Your task to perform on an android device: change notifications settings Image 0: 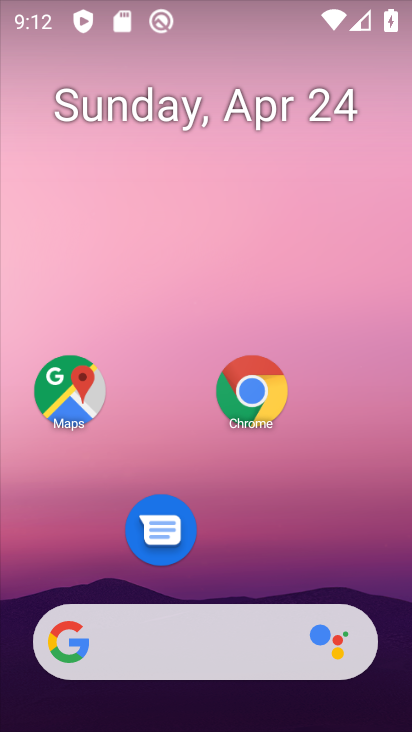
Step 0: drag from (218, 587) to (228, 80)
Your task to perform on an android device: change notifications settings Image 1: 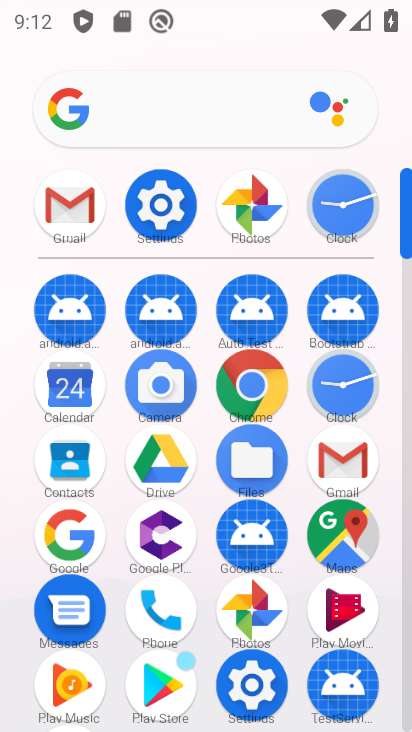
Step 1: click (248, 672)
Your task to perform on an android device: change notifications settings Image 2: 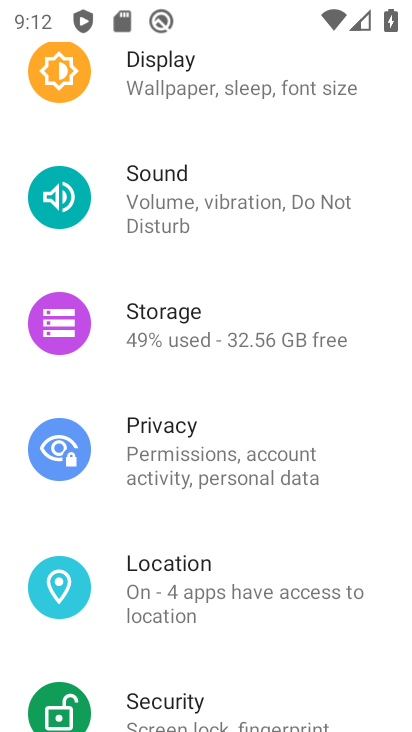
Step 2: drag from (155, 198) to (188, 515)
Your task to perform on an android device: change notifications settings Image 3: 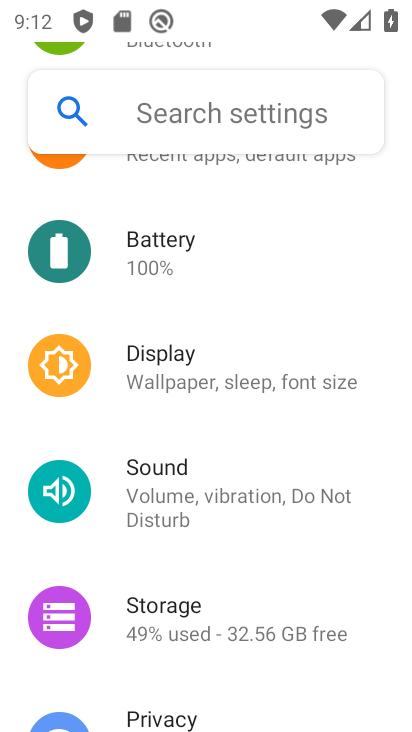
Step 3: drag from (201, 170) to (277, 508)
Your task to perform on an android device: change notifications settings Image 4: 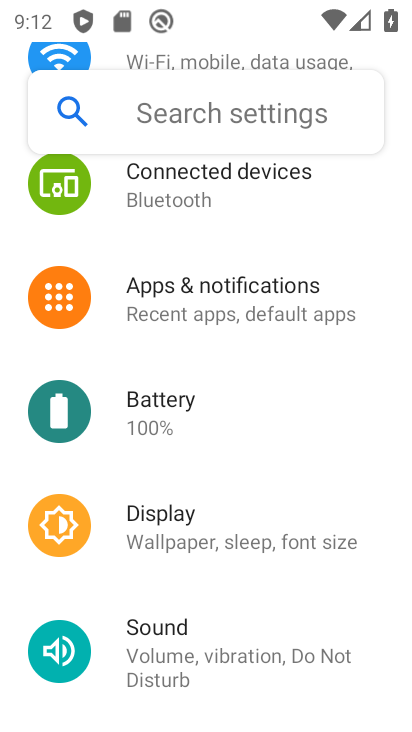
Step 4: click (207, 298)
Your task to perform on an android device: change notifications settings Image 5: 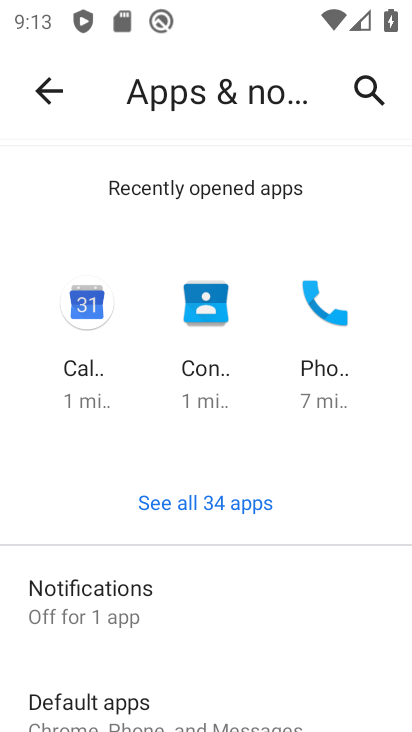
Step 5: click (138, 647)
Your task to perform on an android device: change notifications settings Image 6: 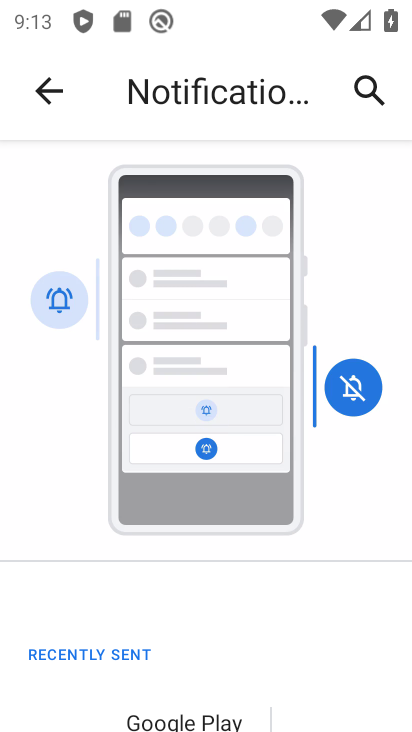
Step 6: drag from (174, 594) to (236, 210)
Your task to perform on an android device: change notifications settings Image 7: 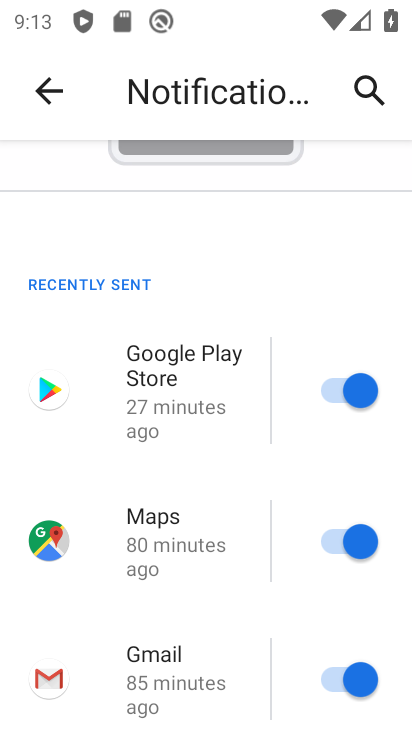
Step 7: drag from (181, 518) to (215, 154)
Your task to perform on an android device: change notifications settings Image 8: 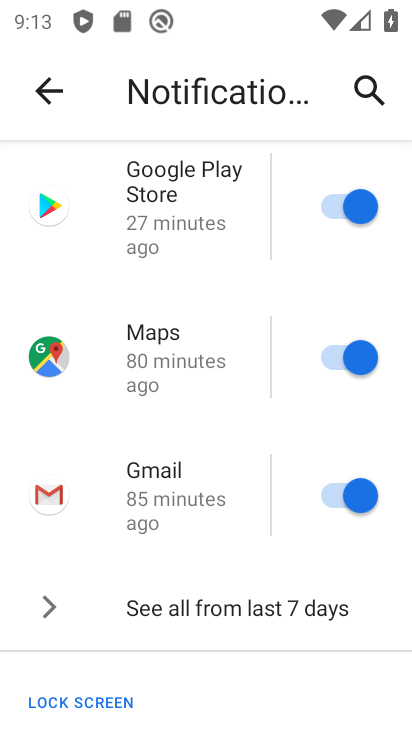
Step 8: drag from (201, 688) to (207, 323)
Your task to perform on an android device: change notifications settings Image 9: 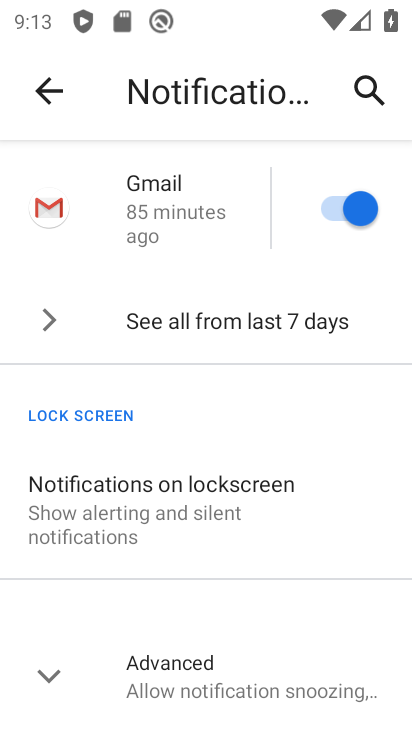
Step 9: click (182, 662)
Your task to perform on an android device: change notifications settings Image 10: 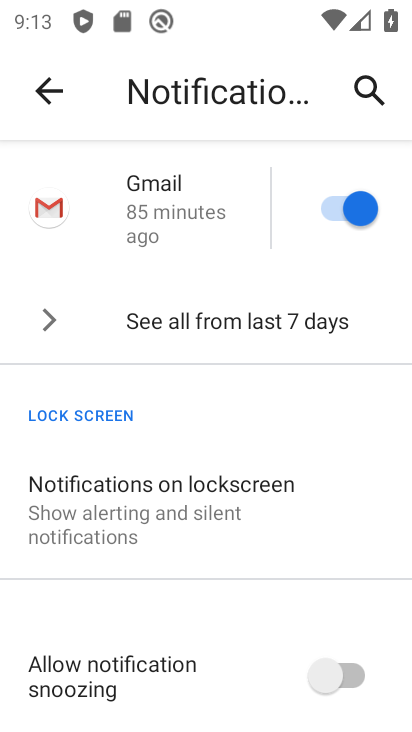
Step 10: drag from (196, 651) to (217, 375)
Your task to perform on an android device: change notifications settings Image 11: 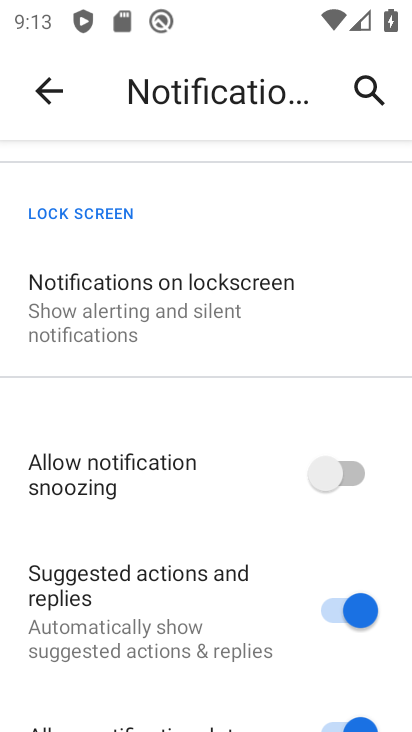
Step 11: drag from (216, 584) to (231, 261)
Your task to perform on an android device: change notifications settings Image 12: 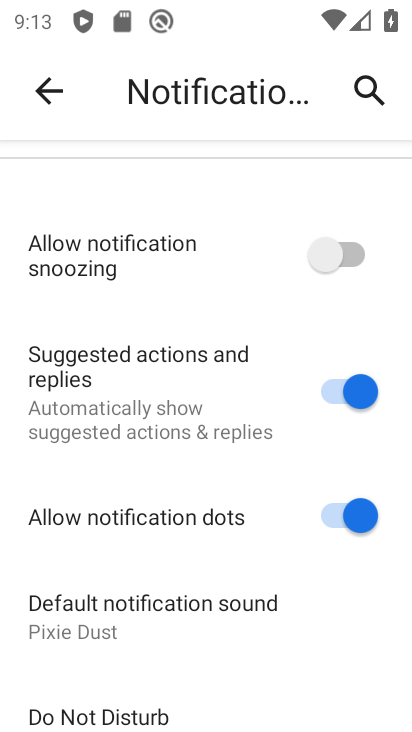
Step 12: click (350, 518)
Your task to perform on an android device: change notifications settings Image 13: 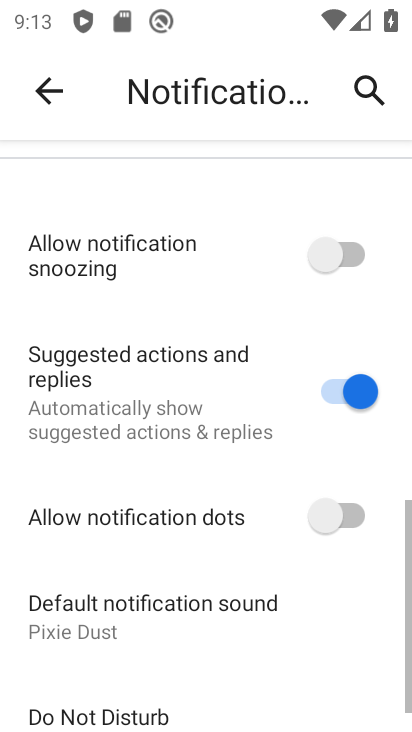
Step 13: click (341, 382)
Your task to perform on an android device: change notifications settings Image 14: 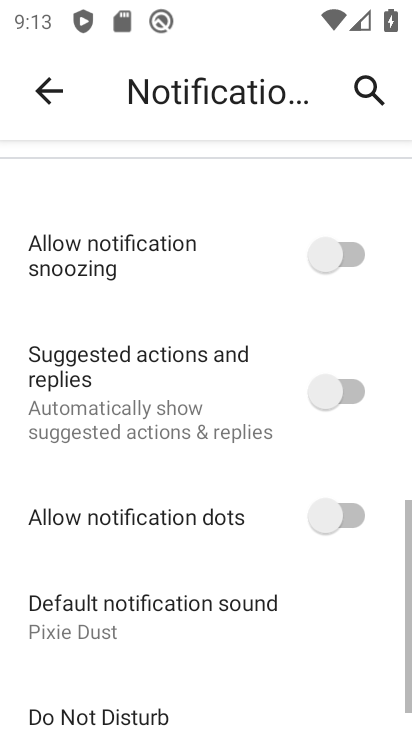
Step 14: click (357, 260)
Your task to perform on an android device: change notifications settings Image 15: 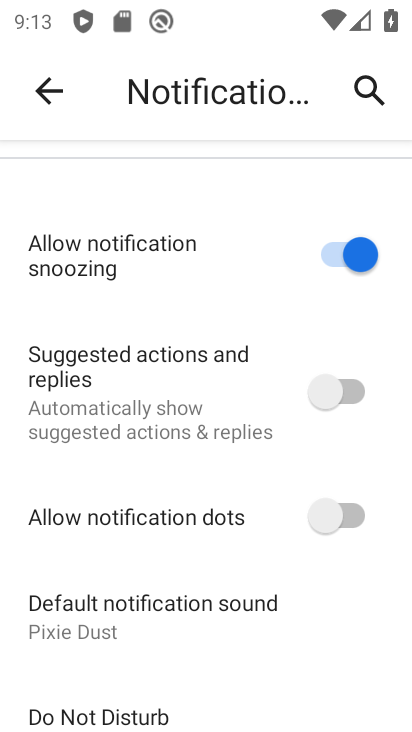
Step 15: task complete